Your task to perform on an android device: What's on my calendar tomorrow? Image 0: 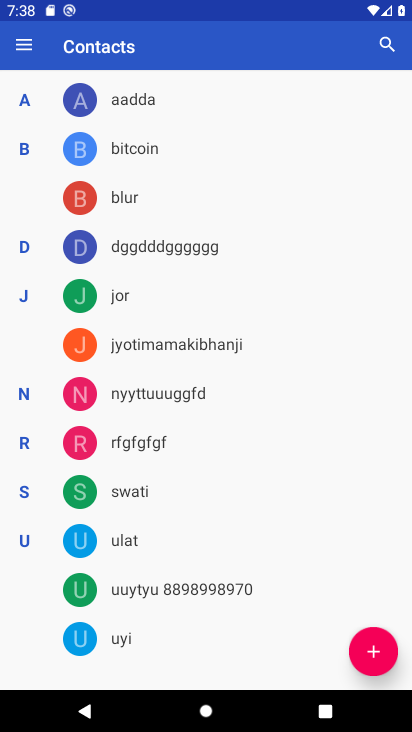
Step 0: press home button
Your task to perform on an android device: What's on my calendar tomorrow? Image 1: 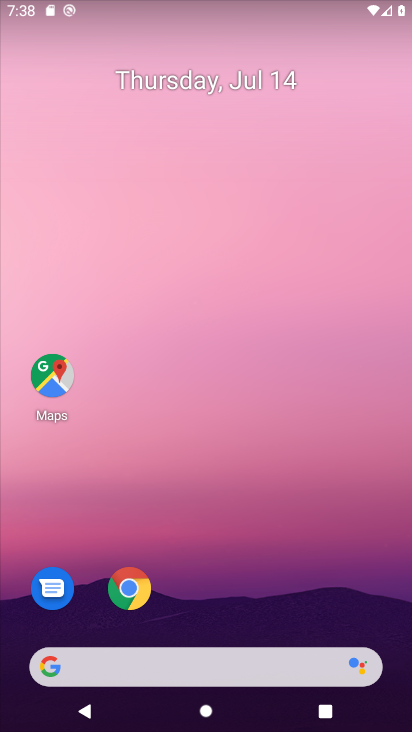
Step 1: drag from (188, 634) to (121, 103)
Your task to perform on an android device: What's on my calendar tomorrow? Image 2: 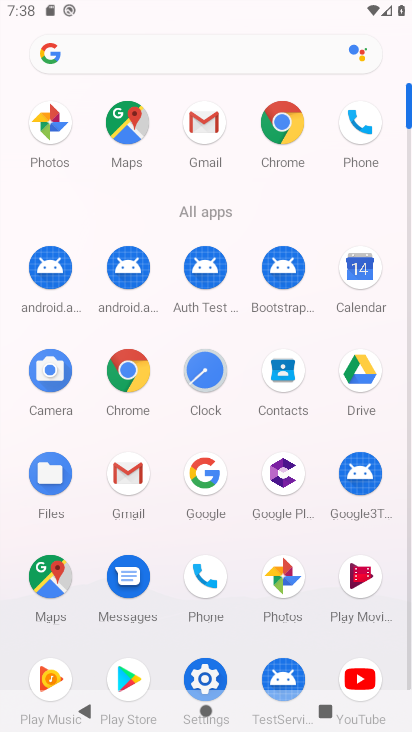
Step 2: click (373, 259)
Your task to perform on an android device: What's on my calendar tomorrow? Image 3: 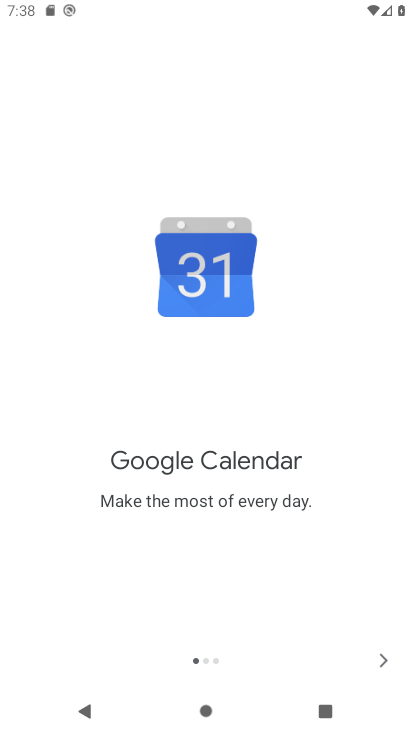
Step 3: click (389, 655)
Your task to perform on an android device: What's on my calendar tomorrow? Image 4: 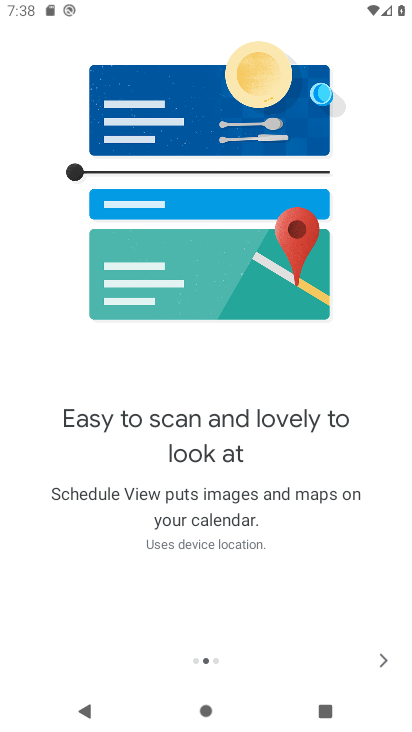
Step 4: click (389, 654)
Your task to perform on an android device: What's on my calendar tomorrow? Image 5: 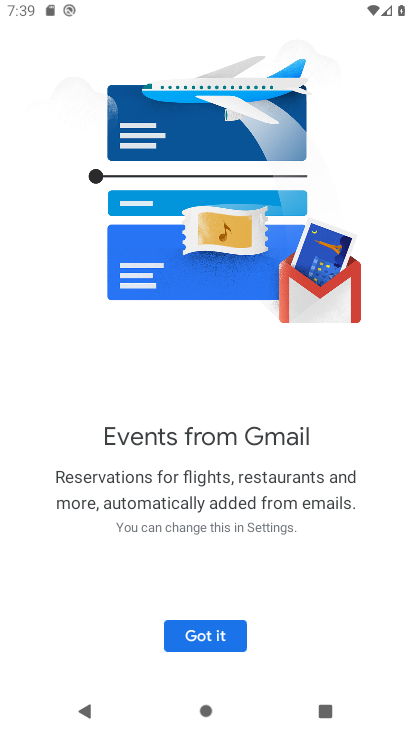
Step 5: click (187, 638)
Your task to perform on an android device: What's on my calendar tomorrow? Image 6: 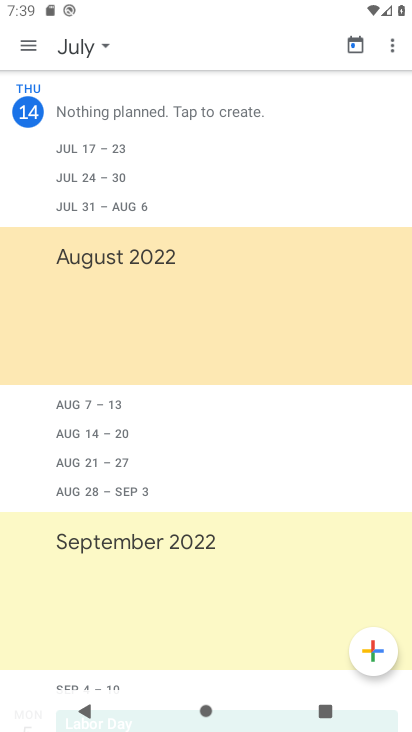
Step 6: click (23, 52)
Your task to perform on an android device: What's on my calendar tomorrow? Image 7: 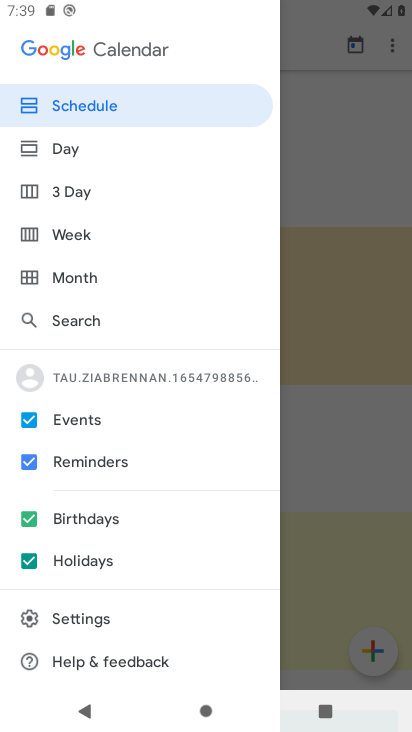
Step 7: click (81, 219)
Your task to perform on an android device: What's on my calendar tomorrow? Image 8: 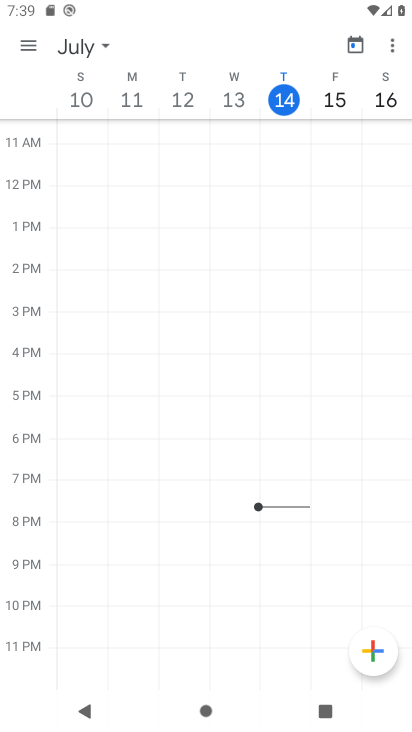
Step 8: click (323, 99)
Your task to perform on an android device: What's on my calendar tomorrow? Image 9: 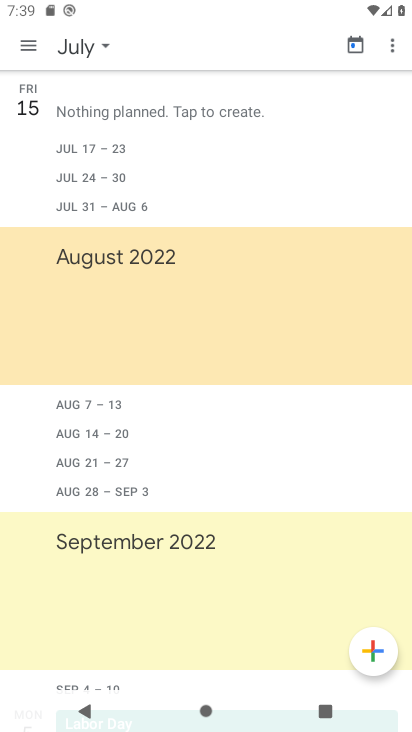
Step 9: task complete